Your task to perform on an android device: open device folders in google photos Image 0: 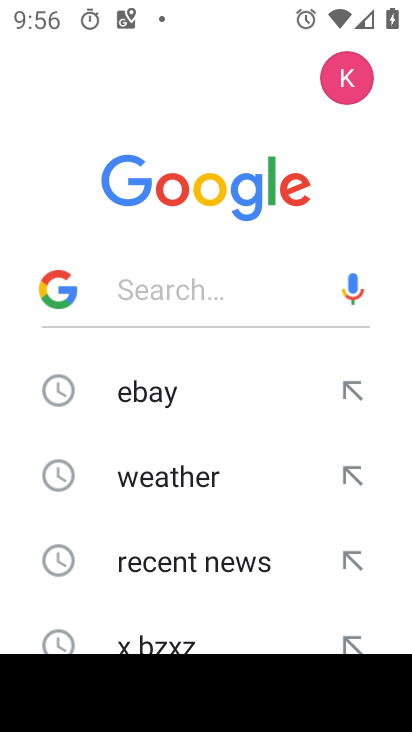
Step 0: press home button
Your task to perform on an android device: open device folders in google photos Image 1: 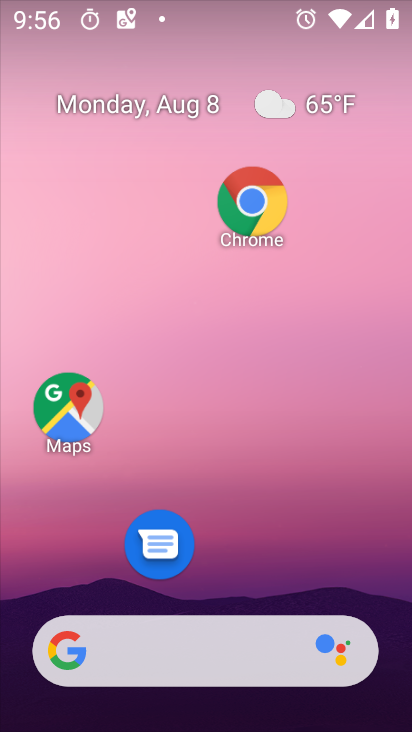
Step 1: drag from (227, 577) to (238, 17)
Your task to perform on an android device: open device folders in google photos Image 2: 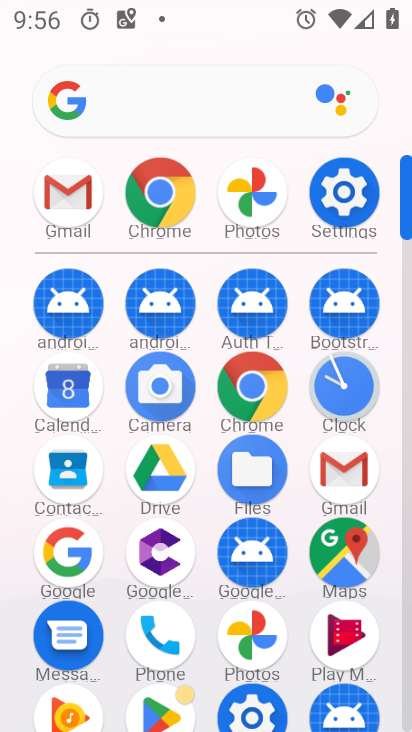
Step 2: click (344, 191)
Your task to perform on an android device: open device folders in google photos Image 3: 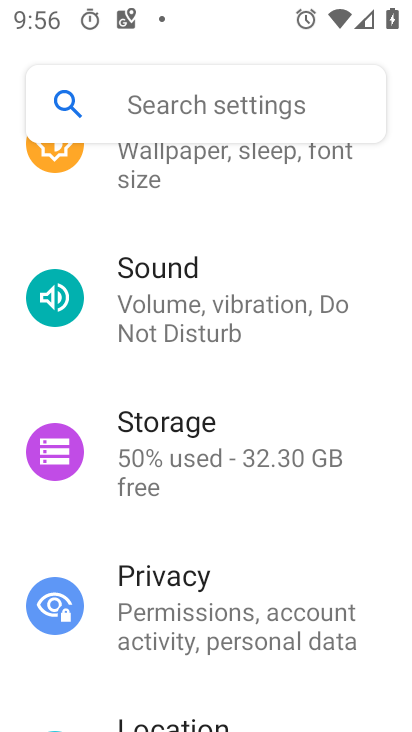
Step 3: press home button
Your task to perform on an android device: open device folders in google photos Image 4: 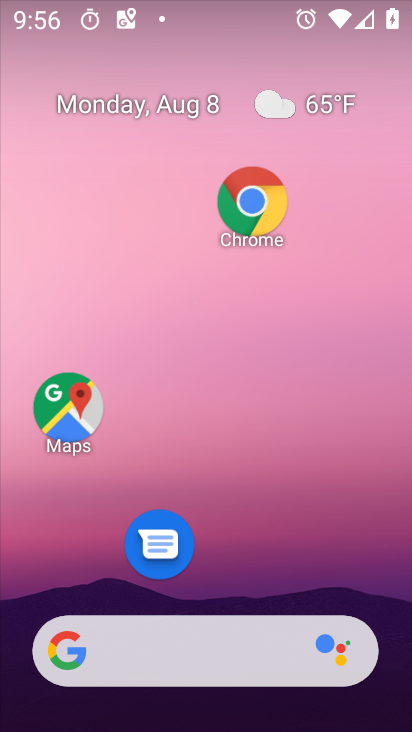
Step 4: press home button
Your task to perform on an android device: open device folders in google photos Image 5: 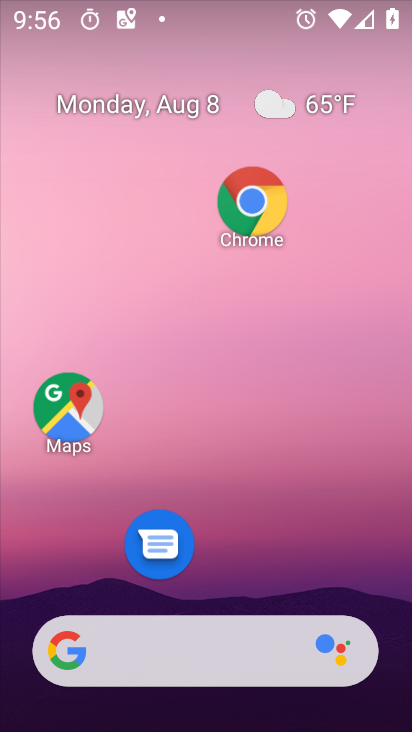
Step 5: drag from (226, 595) to (234, 62)
Your task to perform on an android device: open device folders in google photos Image 6: 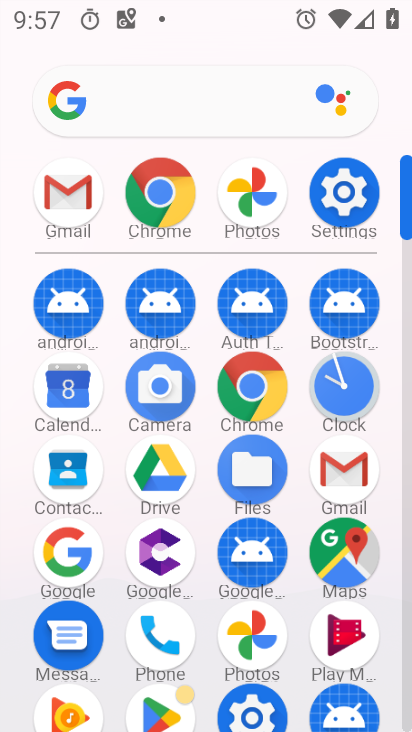
Step 6: click (252, 189)
Your task to perform on an android device: open device folders in google photos Image 7: 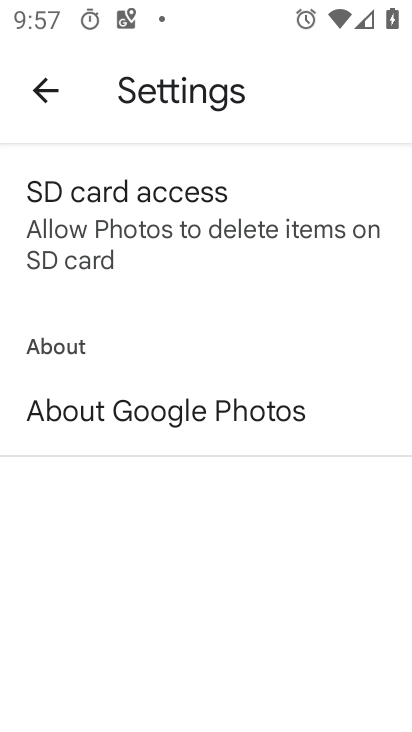
Step 7: click (52, 117)
Your task to perform on an android device: open device folders in google photos Image 8: 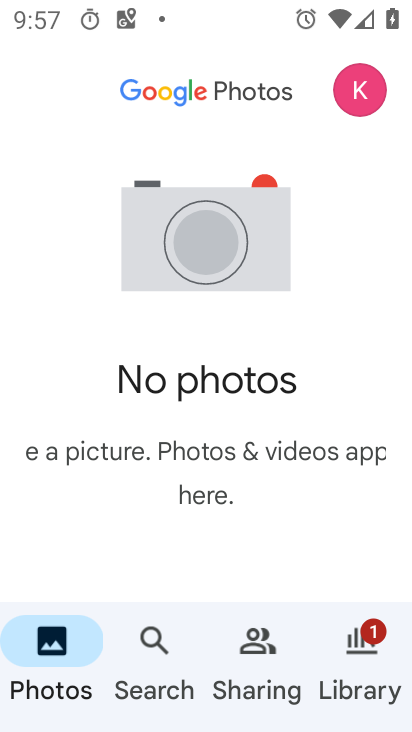
Step 8: click (155, 659)
Your task to perform on an android device: open device folders in google photos Image 9: 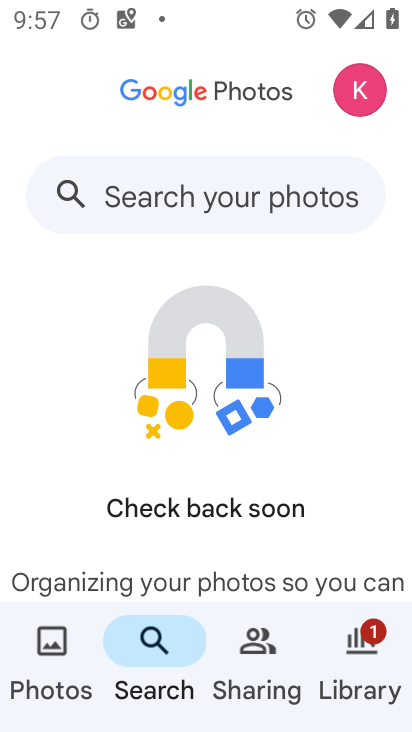
Step 9: click (140, 194)
Your task to perform on an android device: open device folders in google photos Image 10: 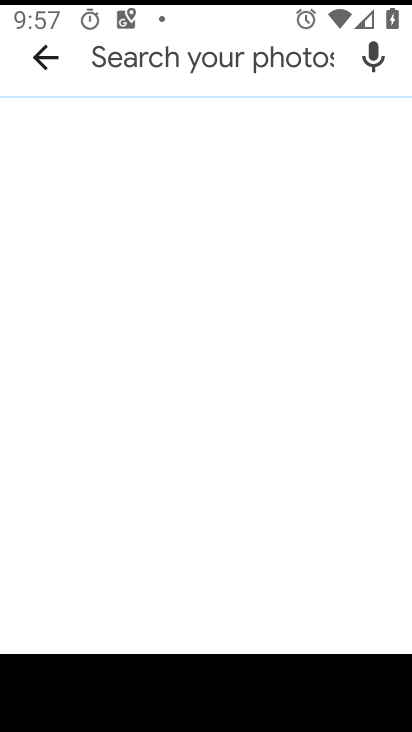
Step 10: type "device"
Your task to perform on an android device: open device folders in google photos Image 11: 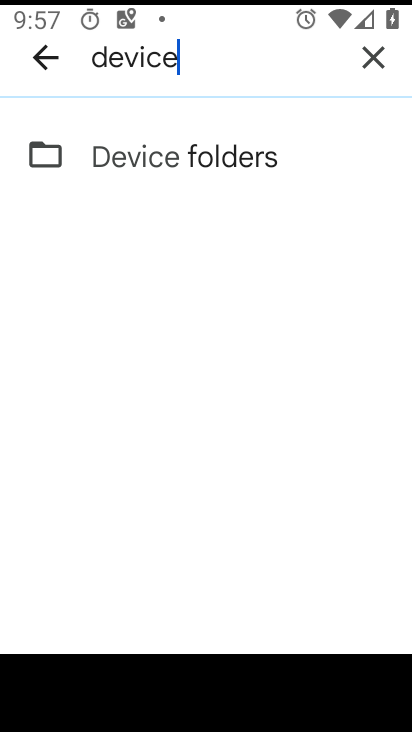
Step 11: click (96, 153)
Your task to perform on an android device: open device folders in google photos Image 12: 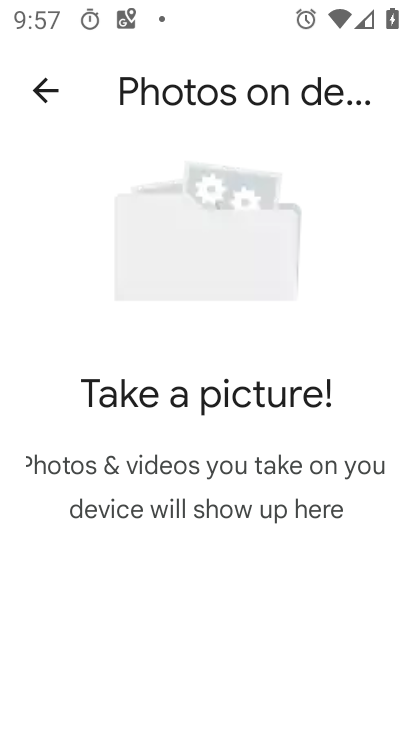
Step 12: task complete